Your task to perform on an android device: move a message to another label in the gmail app Image 0: 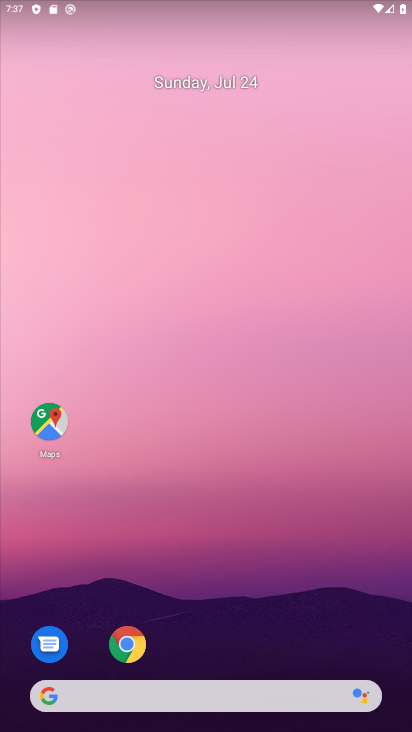
Step 0: drag from (204, 682) to (240, 66)
Your task to perform on an android device: move a message to another label in the gmail app Image 1: 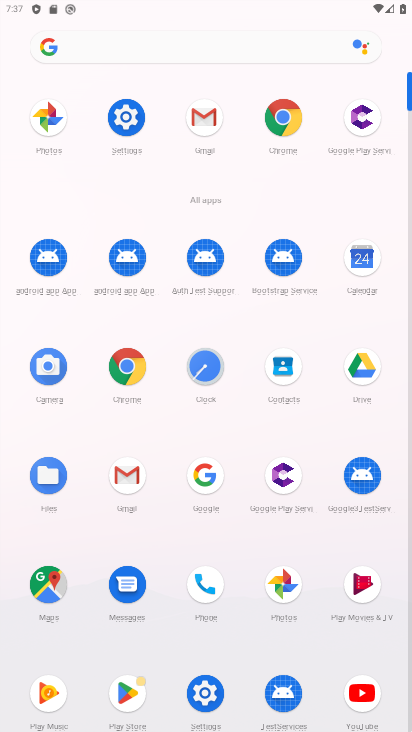
Step 1: click (132, 486)
Your task to perform on an android device: move a message to another label in the gmail app Image 2: 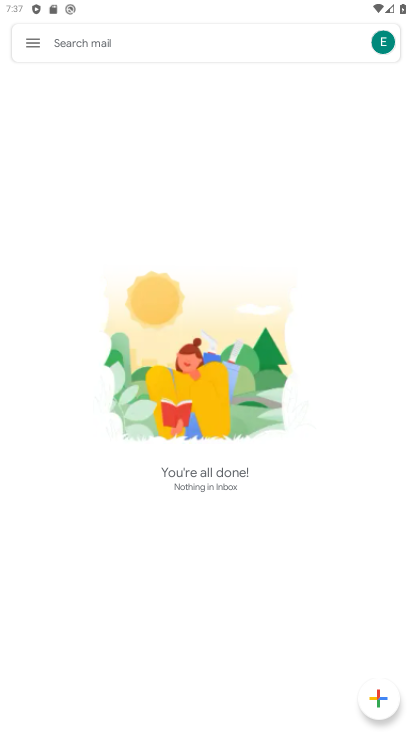
Step 2: task complete